Your task to perform on an android device: Open battery settings Image 0: 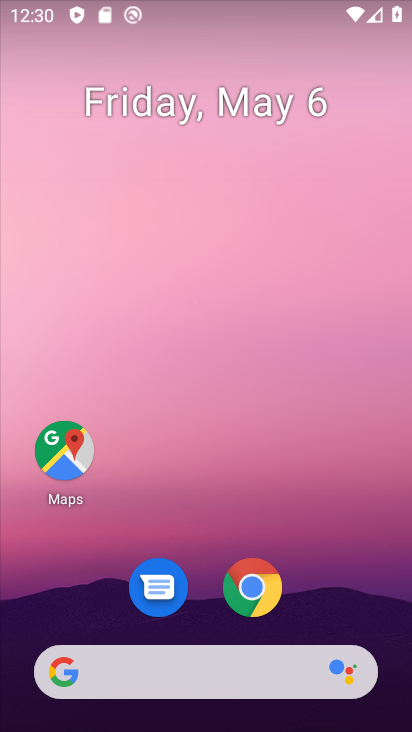
Step 0: drag from (129, 730) to (177, 299)
Your task to perform on an android device: Open battery settings Image 1: 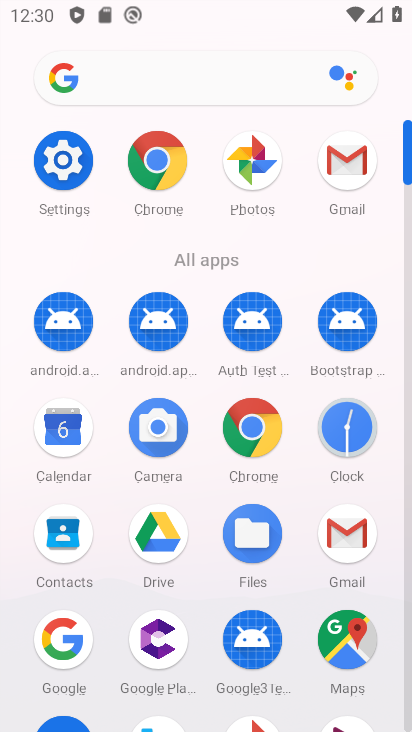
Step 1: click (74, 170)
Your task to perform on an android device: Open battery settings Image 2: 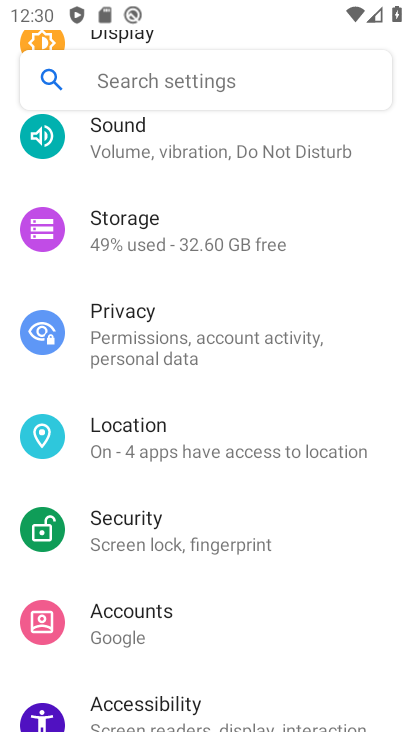
Step 2: drag from (222, 186) to (161, 567)
Your task to perform on an android device: Open battery settings Image 3: 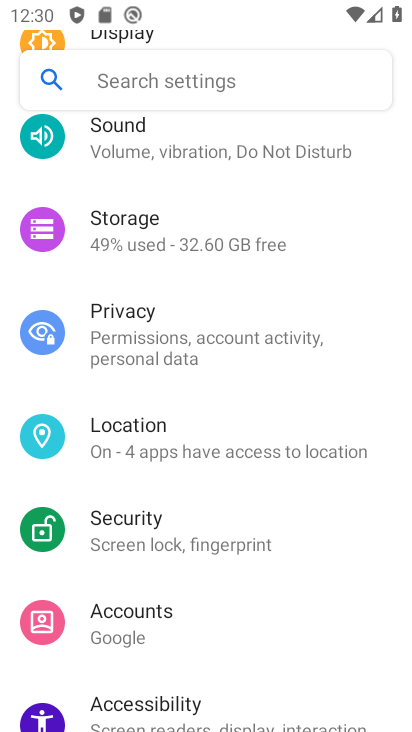
Step 3: drag from (147, 625) to (277, 155)
Your task to perform on an android device: Open battery settings Image 4: 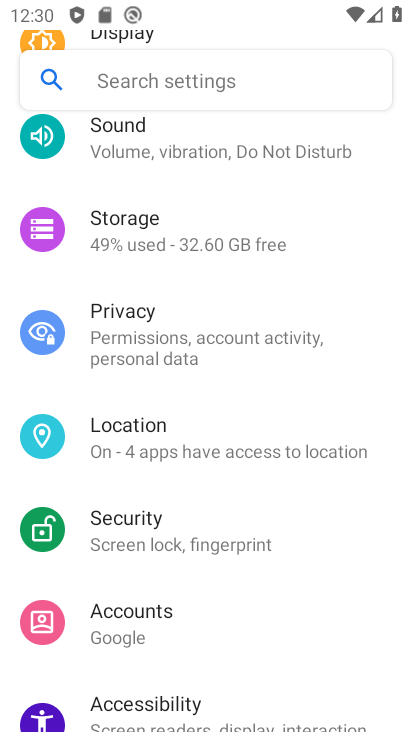
Step 4: drag from (141, 612) to (249, 219)
Your task to perform on an android device: Open battery settings Image 5: 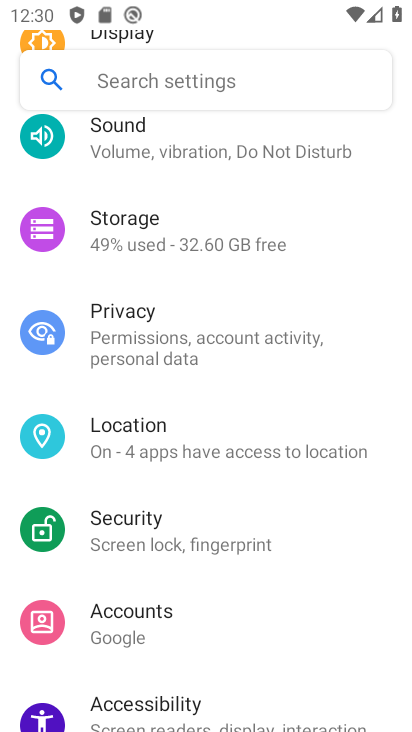
Step 5: drag from (270, 177) to (197, 574)
Your task to perform on an android device: Open battery settings Image 6: 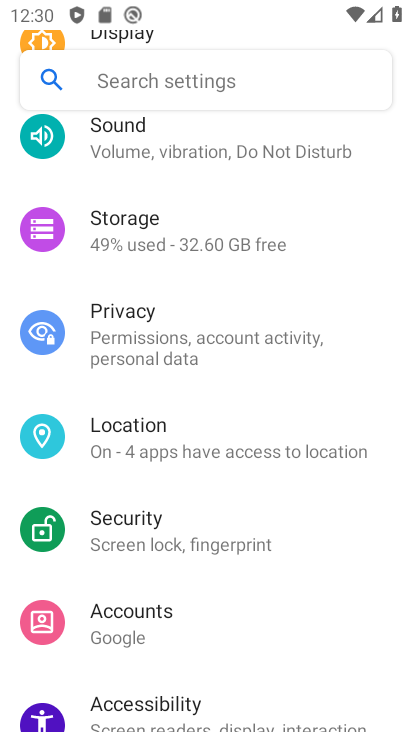
Step 6: drag from (276, 577) to (313, 227)
Your task to perform on an android device: Open battery settings Image 7: 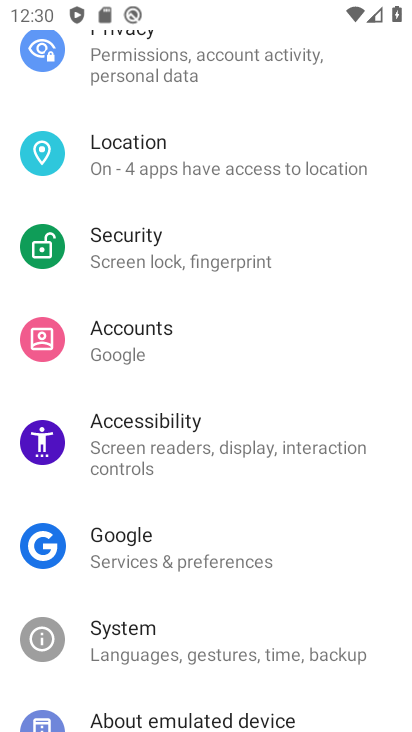
Step 7: drag from (185, 575) to (297, 159)
Your task to perform on an android device: Open battery settings Image 8: 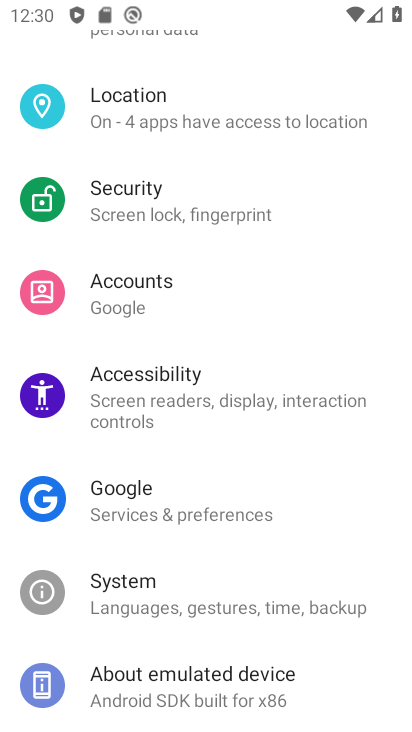
Step 8: drag from (306, 140) to (144, 531)
Your task to perform on an android device: Open battery settings Image 9: 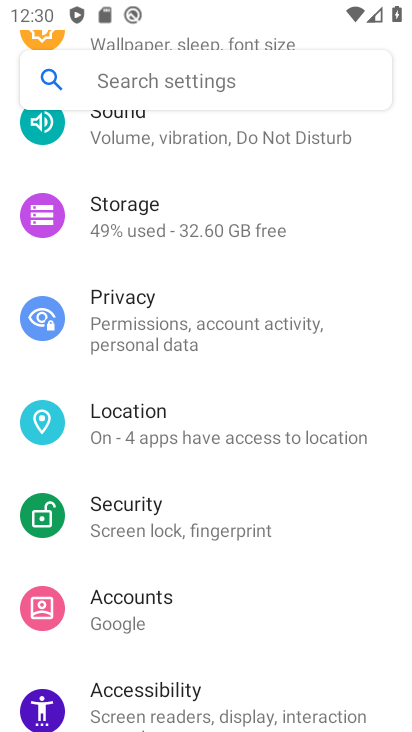
Step 9: drag from (236, 183) to (236, 512)
Your task to perform on an android device: Open battery settings Image 10: 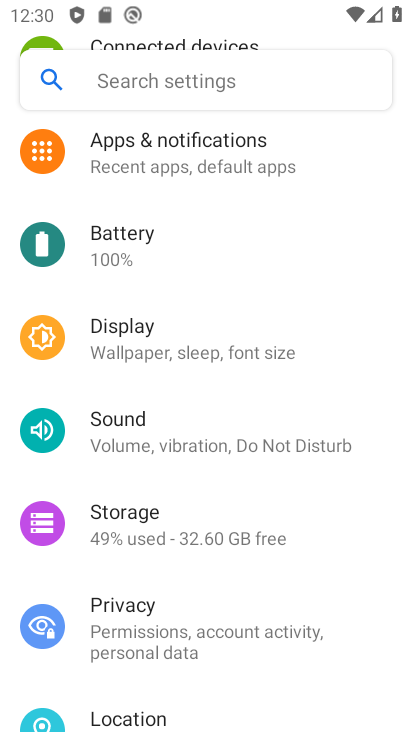
Step 10: drag from (208, 141) to (174, 599)
Your task to perform on an android device: Open battery settings Image 11: 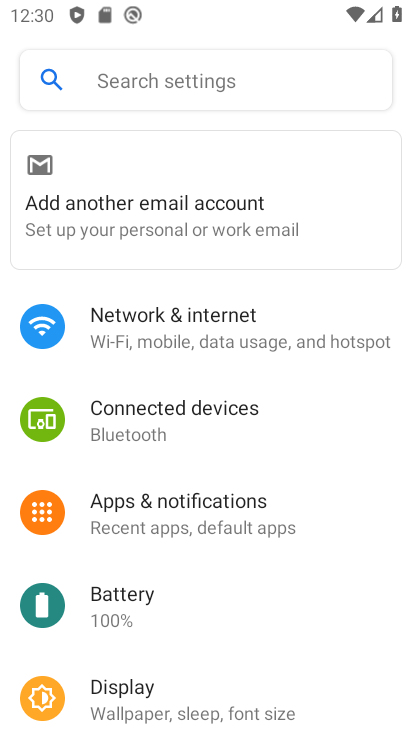
Step 11: click (156, 605)
Your task to perform on an android device: Open battery settings Image 12: 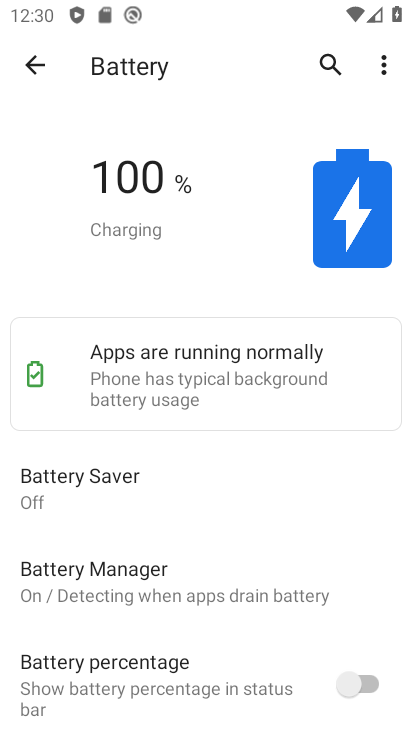
Step 12: task complete